Your task to perform on an android device: Go to wifi settings Image 0: 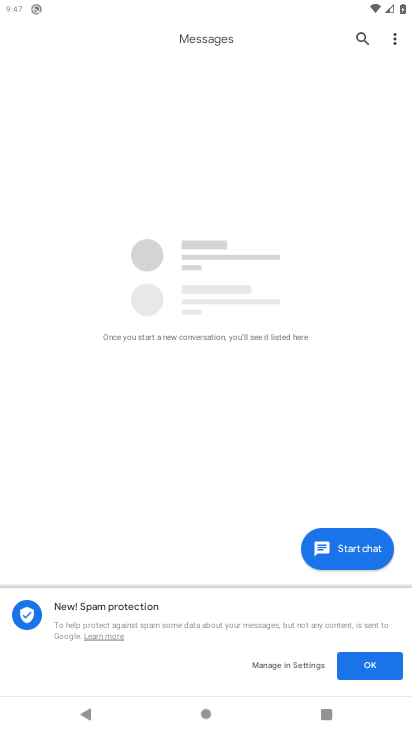
Step 0: press home button
Your task to perform on an android device: Go to wifi settings Image 1: 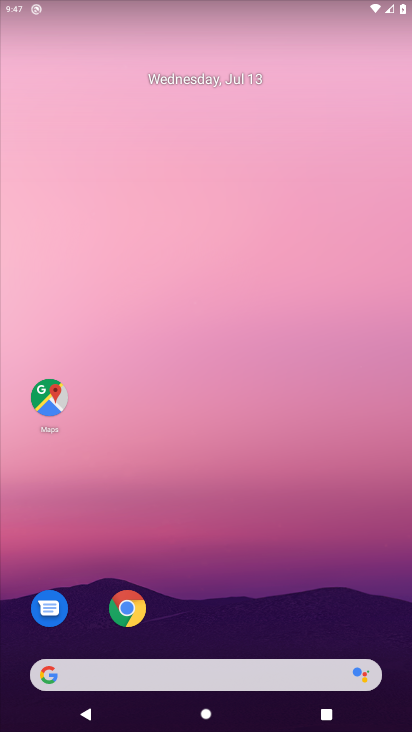
Step 1: drag from (77, 616) to (220, 126)
Your task to perform on an android device: Go to wifi settings Image 2: 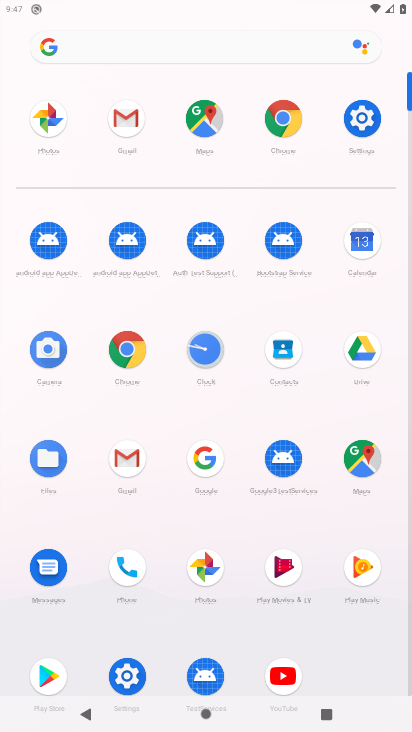
Step 2: click (124, 673)
Your task to perform on an android device: Go to wifi settings Image 3: 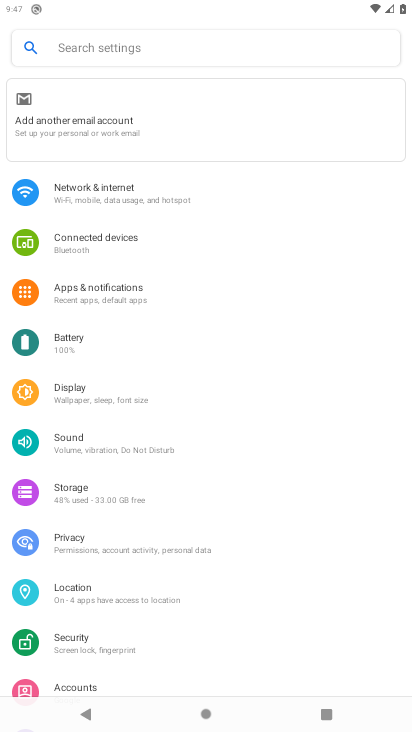
Step 3: click (144, 200)
Your task to perform on an android device: Go to wifi settings Image 4: 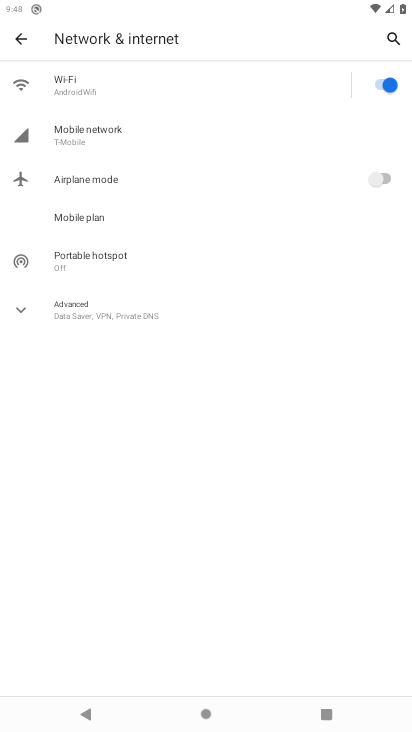
Step 4: task complete